Your task to perform on an android device: clear history in the chrome app Image 0: 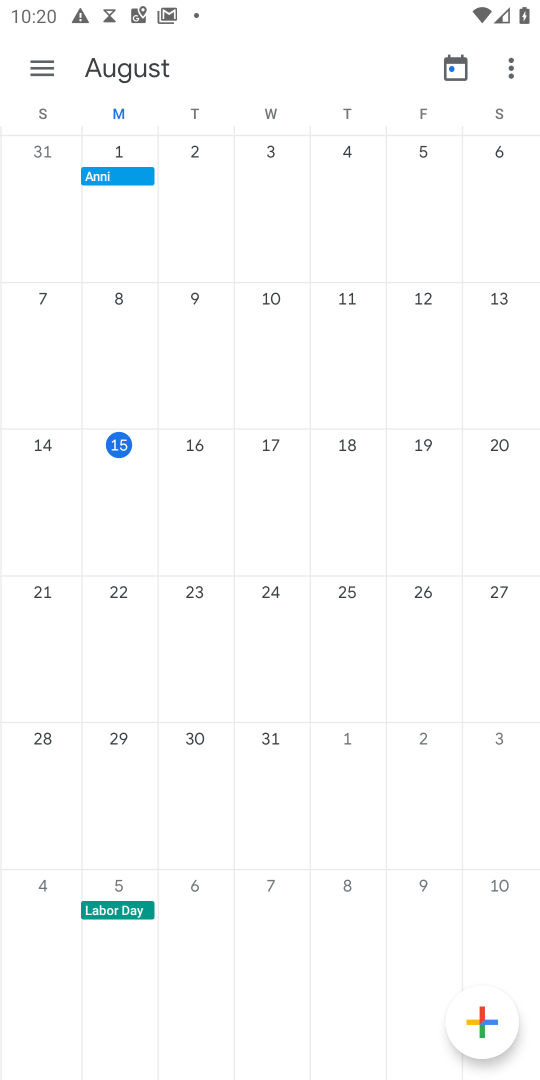
Step 0: press home button
Your task to perform on an android device: clear history in the chrome app Image 1: 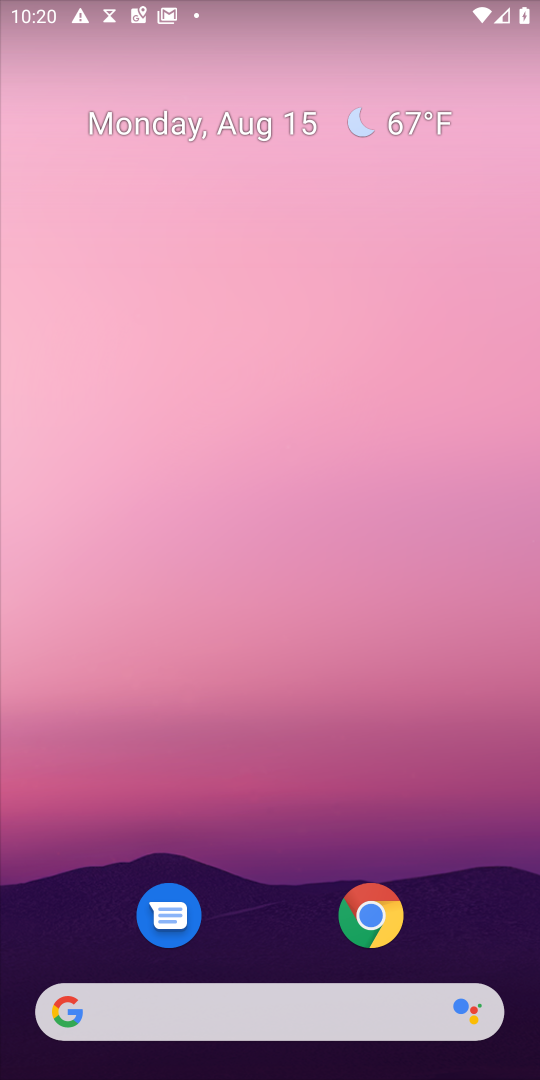
Step 1: click (355, 913)
Your task to perform on an android device: clear history in the chrome app Image 2: 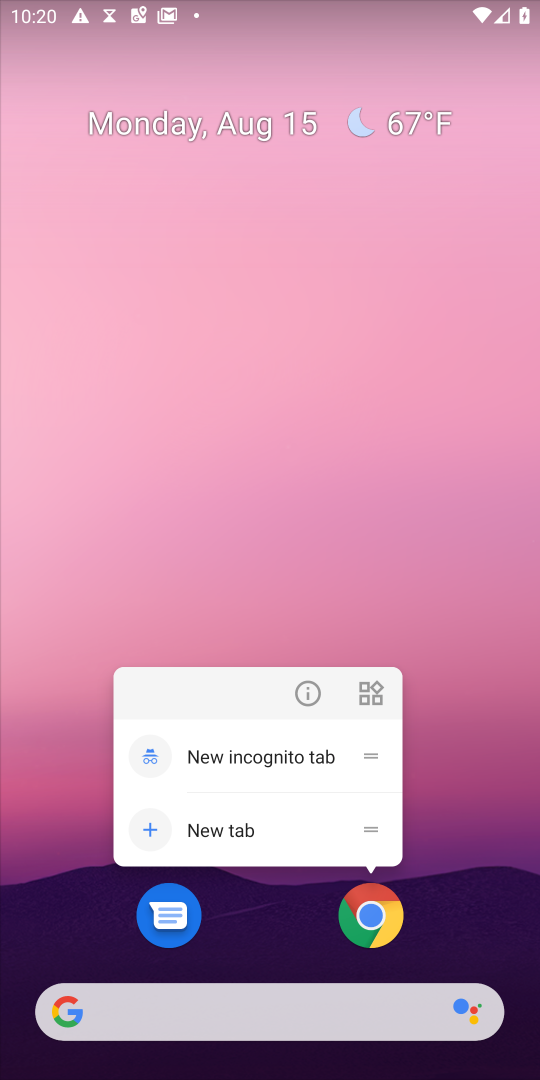
Step 2: click (356, 897)
Your task to perform on an android device: clear history in the chrome app Image 3: 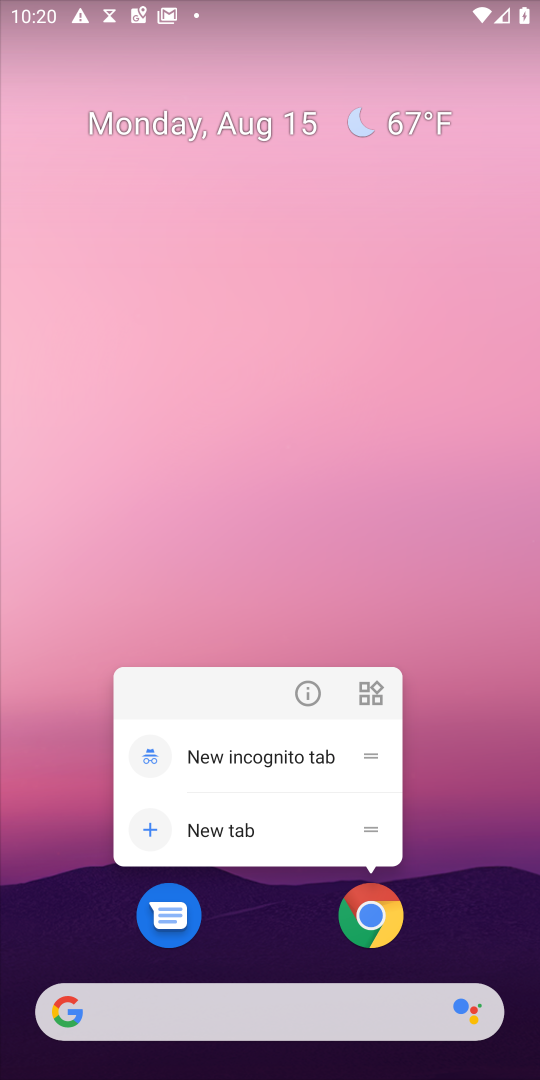
Step 3: click (360, 922)
Your task to perform on an android device: clear history in the chrome app Image 4: 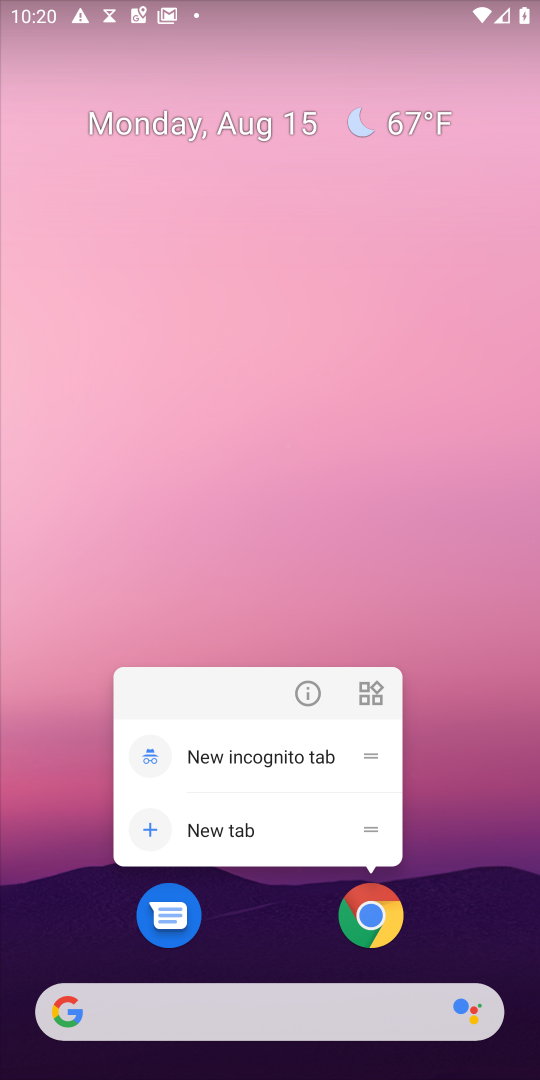
Step 4: click (360, 922)
Your task to perform on an android device: clear history in the chrome app Image 5: 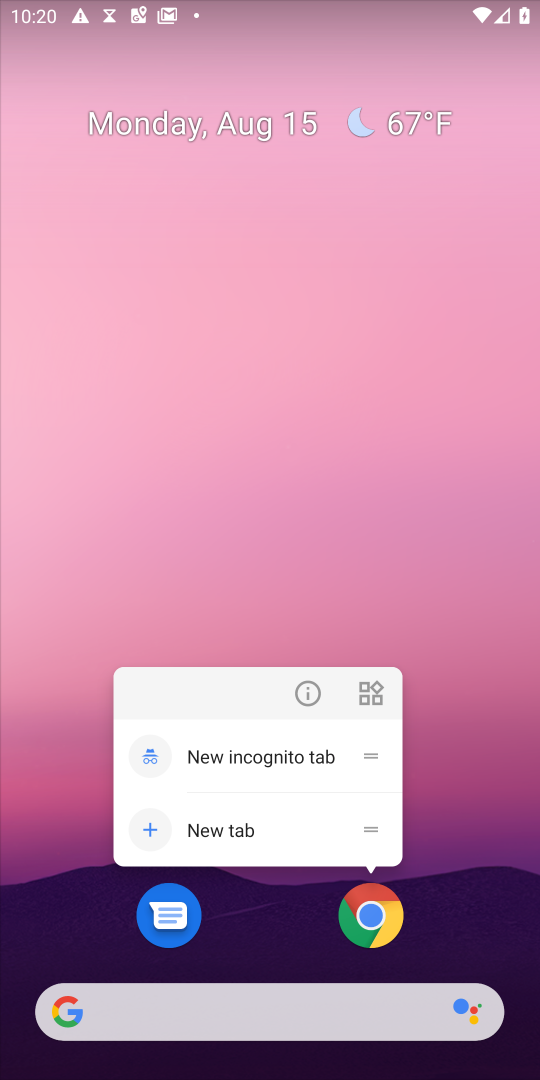
Step 5: click (360, 922)
Your task to perform on an android device: clear history in the chrome app Image 6: 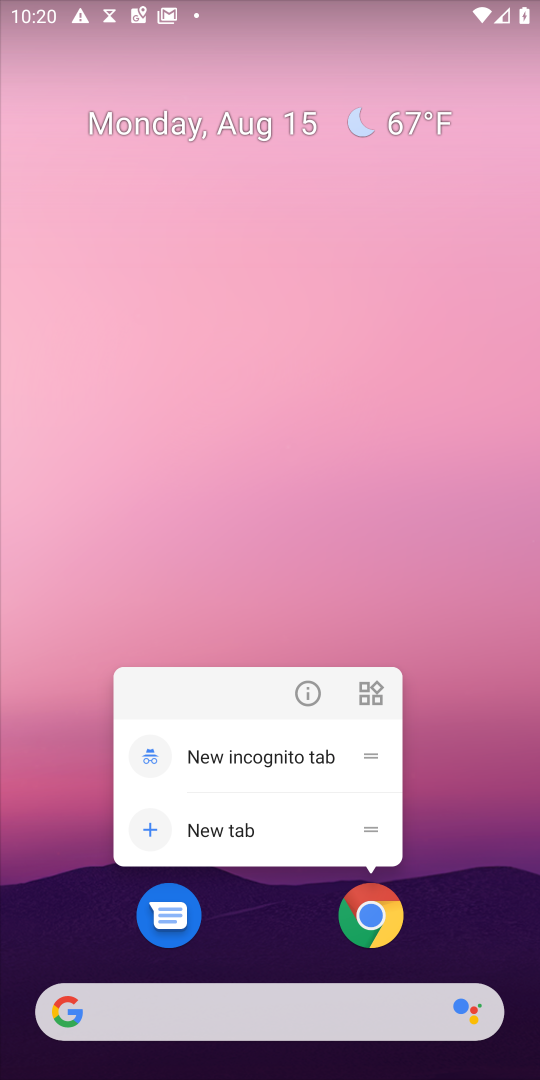
Step 6: click (385, 909)
Your task to perform on an android device: clear history in the chrome app Image 7: 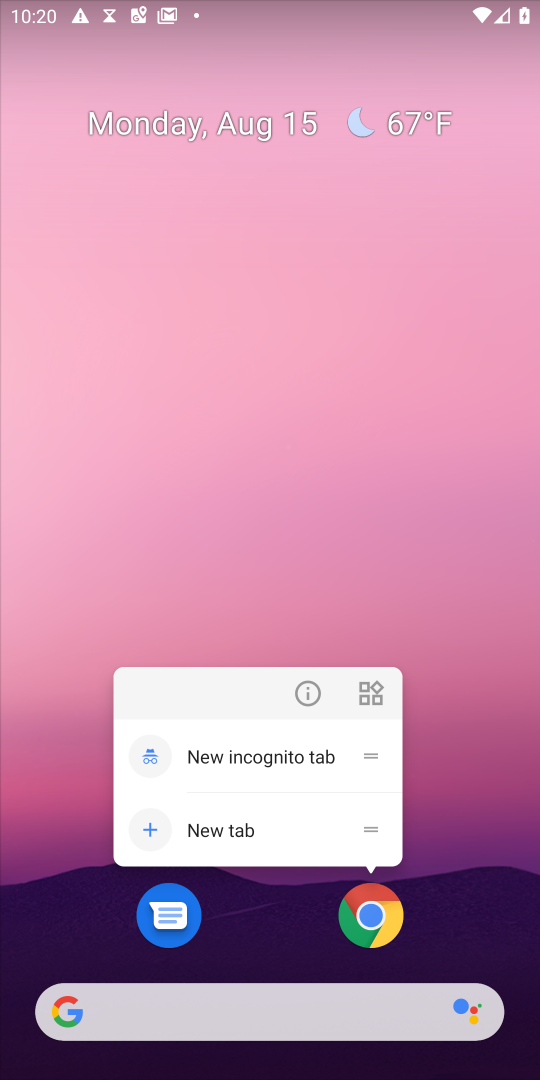
Step 7: press home button
Your task to perform on an android device: clear history in the chrome app Image 8: 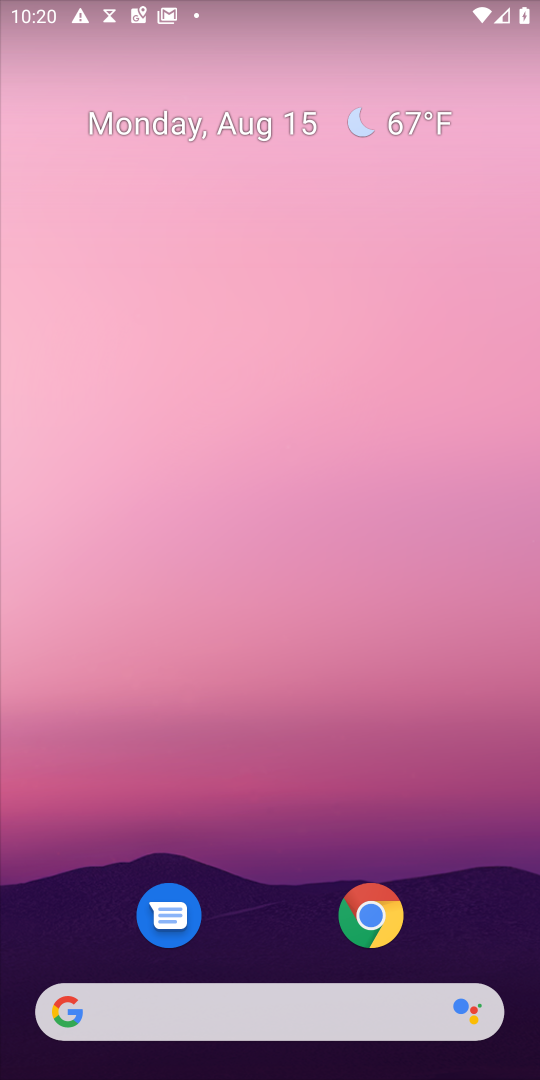
Step 8: click (375, 909)
Your task to perform on an android device: clear history in the chrome app Image 9: 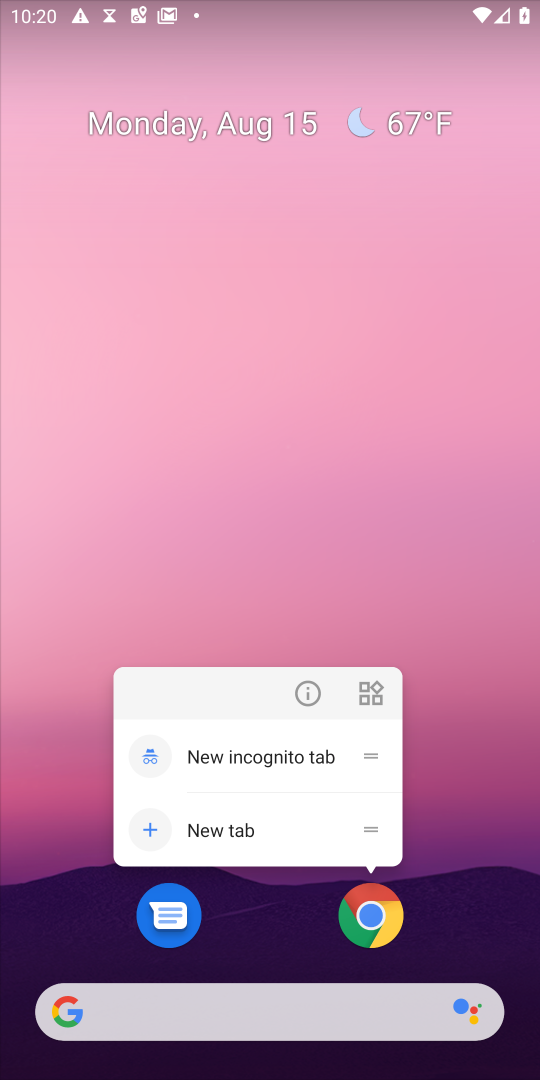
Step 9: click (389, 944)
Your task to perform on an android device: clear history in the chrome app Image 10: 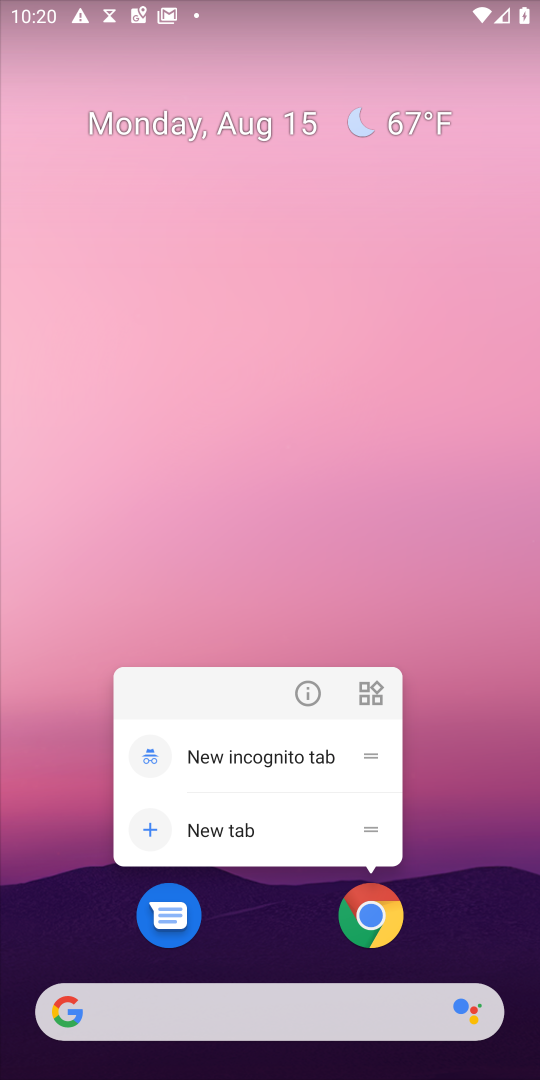
Step 10: click (366, 922)
Your task to perform on an android device: clear history in the chrome app Image 11: 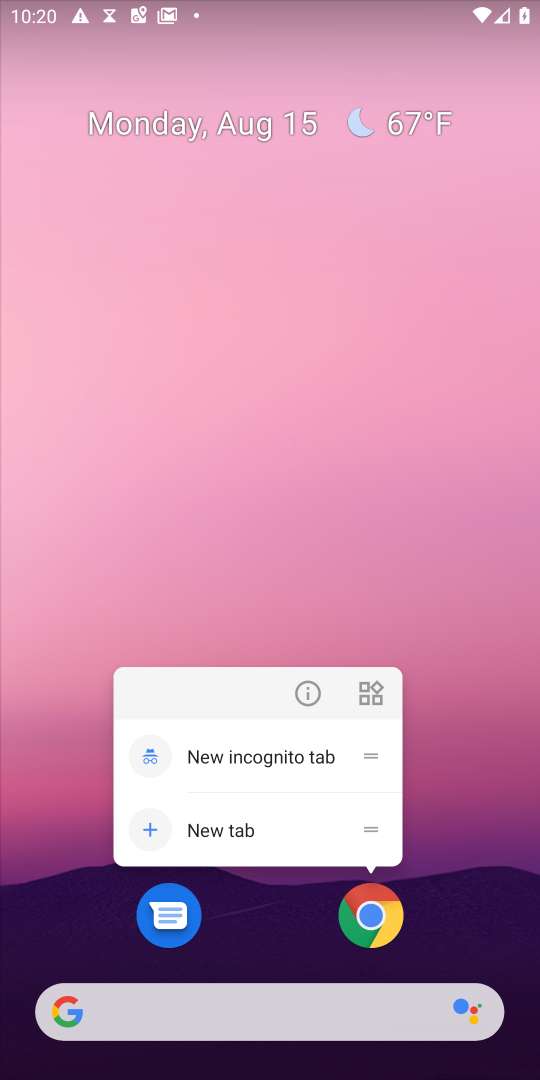
Step 11: drag from (271, 234) to (267, 30)
Your task to perform on an android device: clear history in the chrome app Image 12: 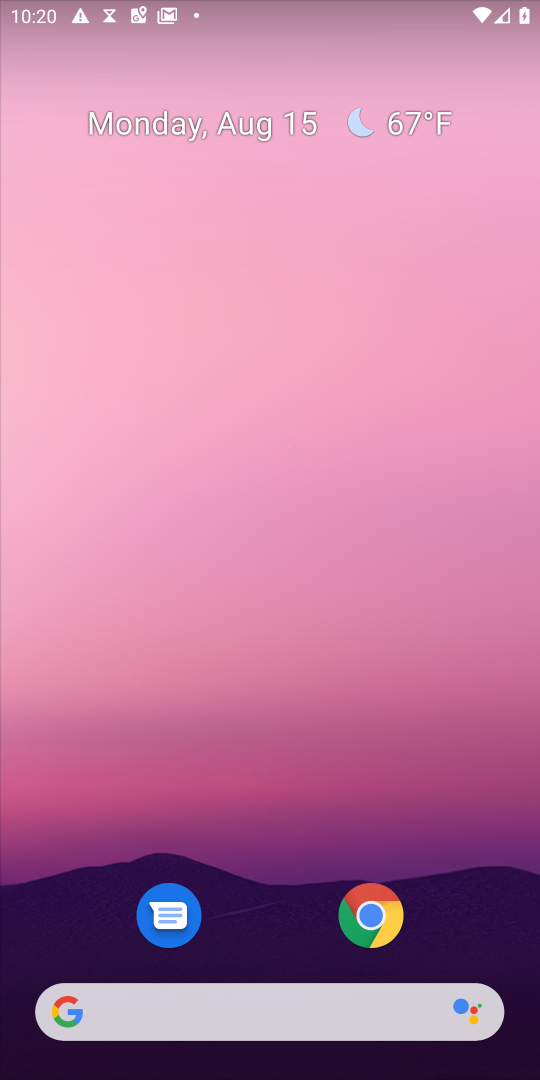
Step 12: drag from (272, 873) to (305, 158)
Your task to perform on an android device: clear history in the chrome app Image 13: 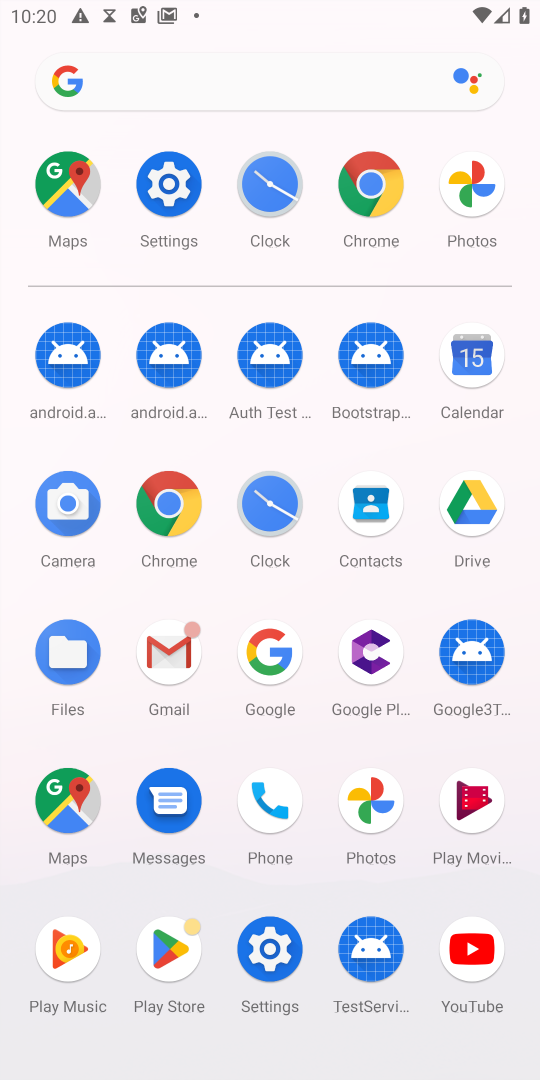
Step 13: click (366, 181)
Your task to perform on an android device: clear history in the chrome app Image 14: 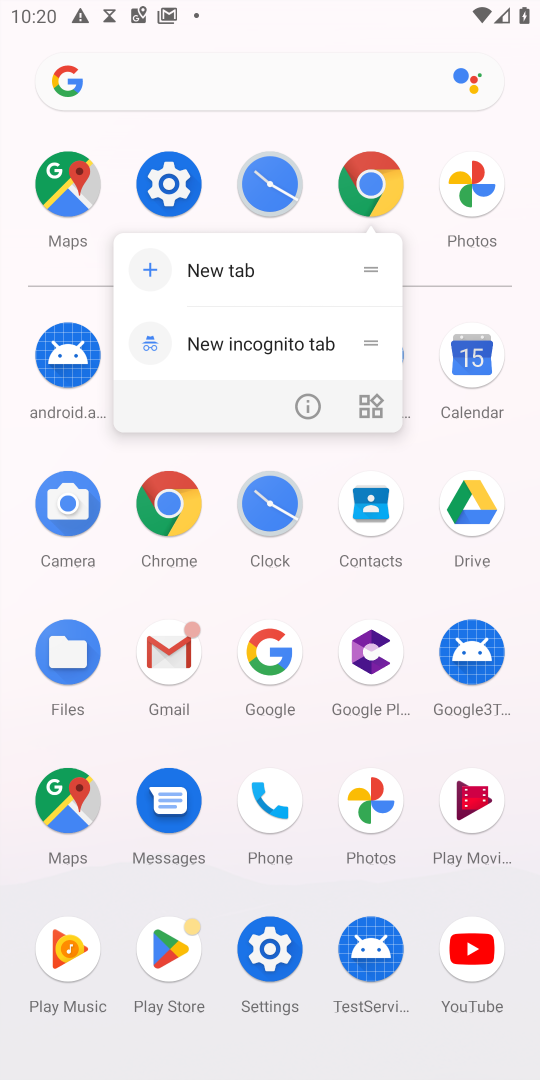
Step 14: click (365, 181)
Your task to perform on an android device: clear history in the chrome app Image 15: 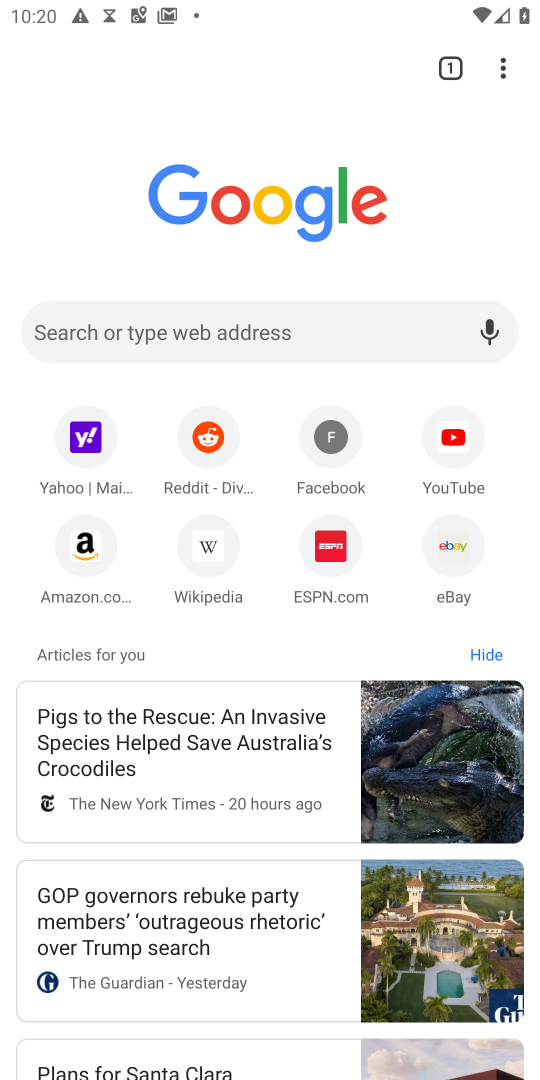
Step 15: drag from (502, 63) to (273, 584)
Your task to perform on an android device: clear history in the chrome app Image 16: 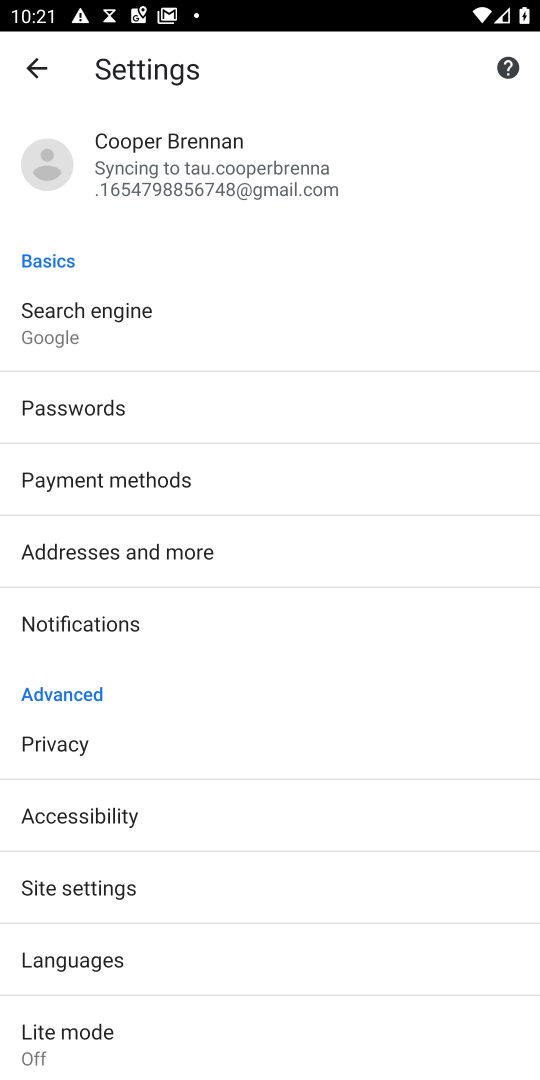
Step 16: click (100, 752)
Your task to perform on an android device: clear history in the chrome app Image 17: 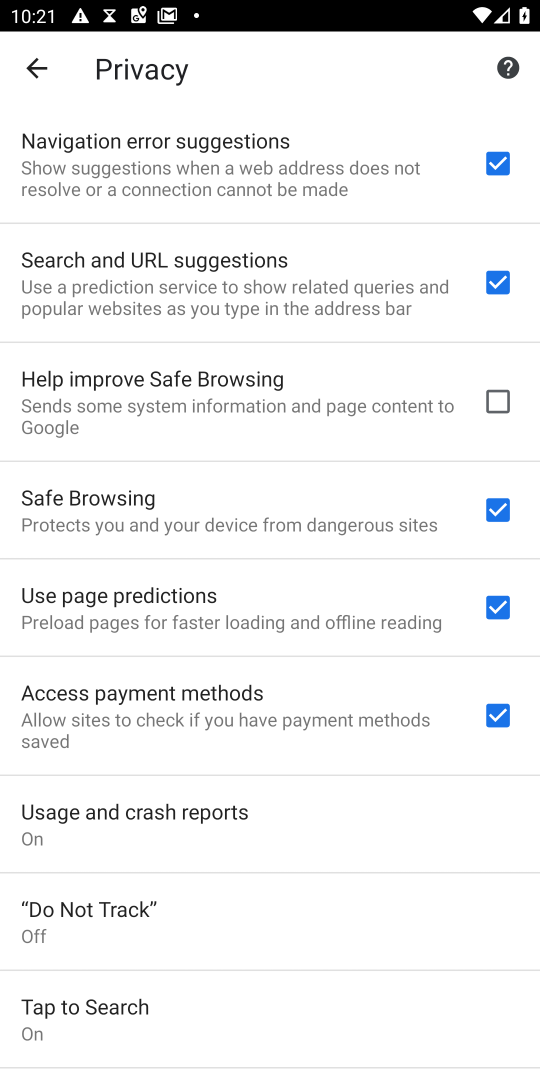
Step 17: drag from (379, 846) to (309, 220)
Your task to perform on an android device: clear history in the chrome app Image 18: 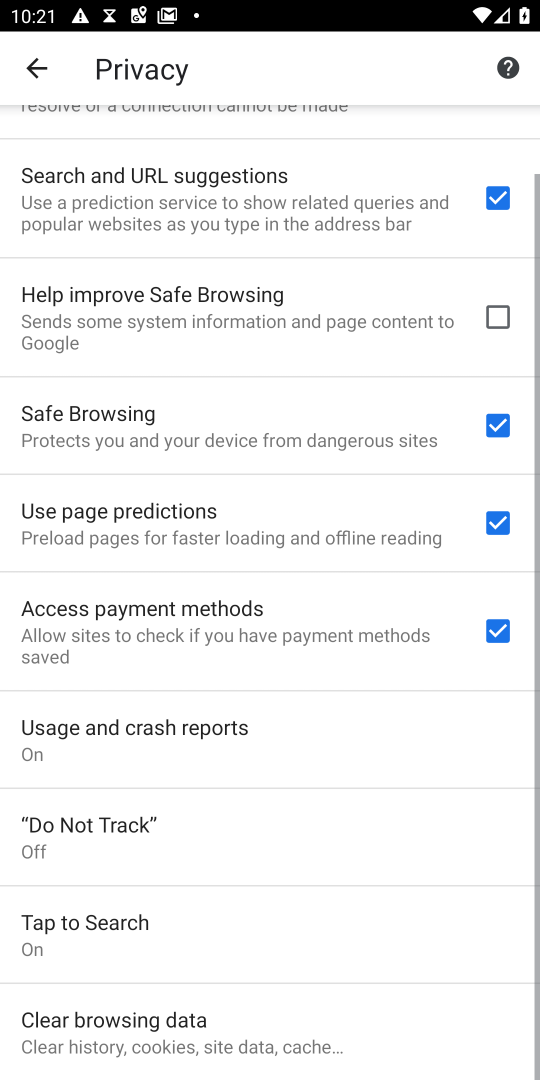
Step 18: click (176, 1025)
Your task to perform on an android device: clear history in the chrome app Image 19: 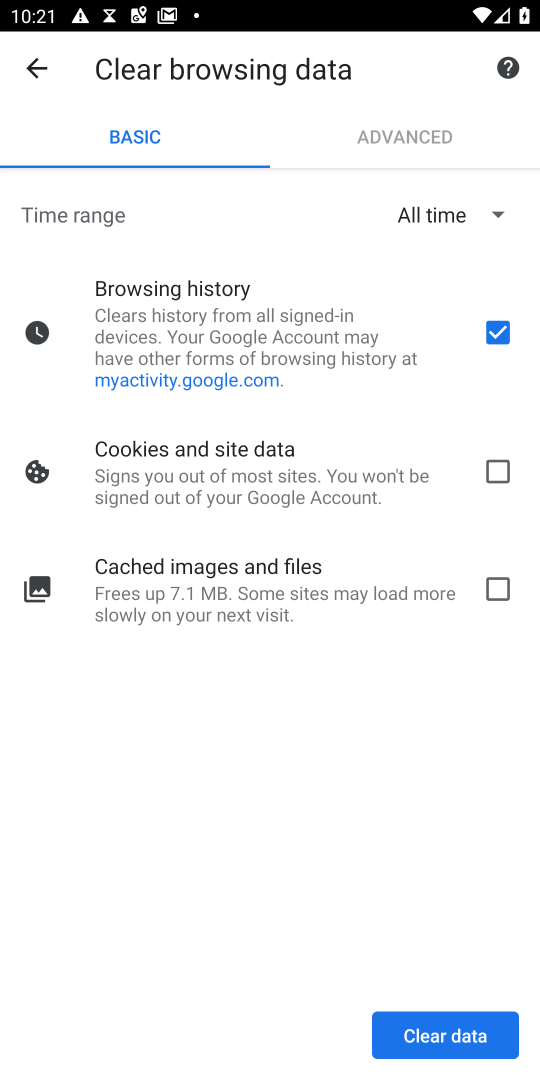
Step 19: click (501, 1039)
Your task to perform on an android device: clear history in the chrome app Image 20: 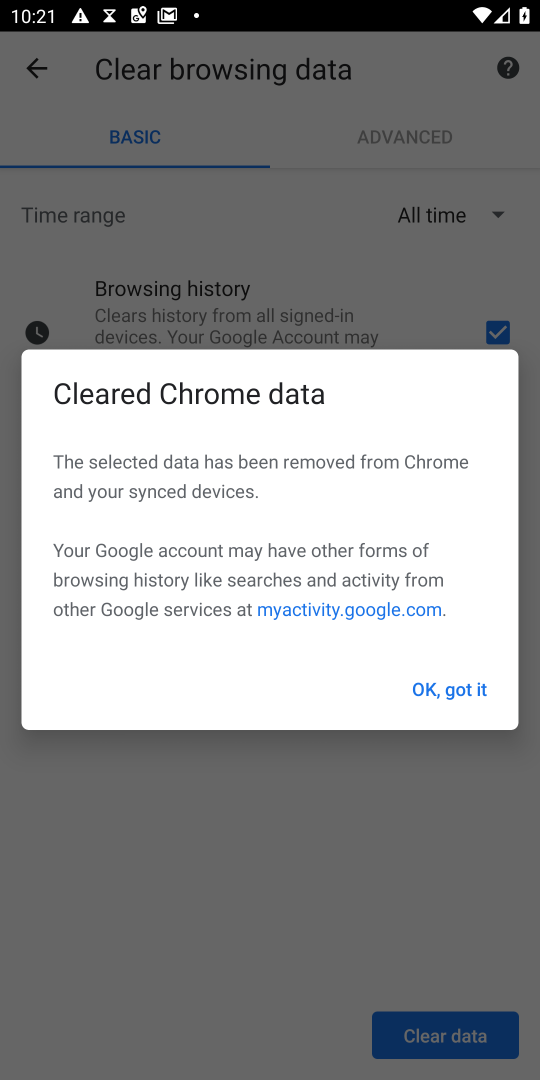
Step 20: click (426, 696)
Your task to perform on an android device: clear history in the chrome app Image 21: 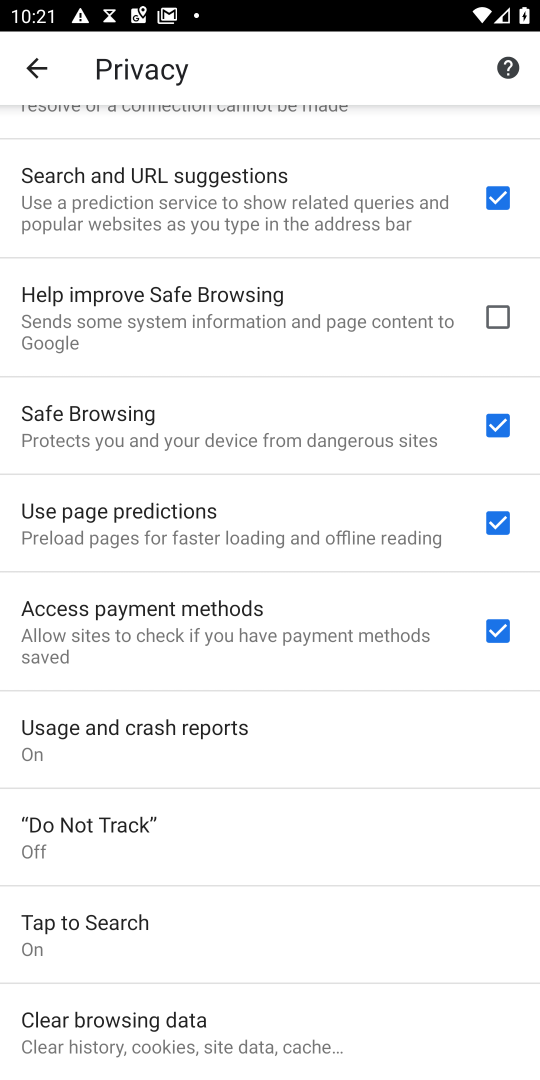
Step 21: task complete